Your task to perform on an android device: Find coffee shops on Maps Image 0: 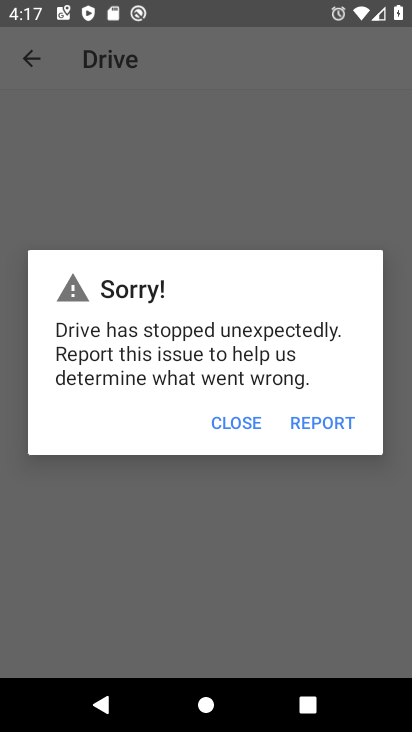
Step 0: press home button
Your task to perform on an android device: Find coffee shops on Maps Image 1: 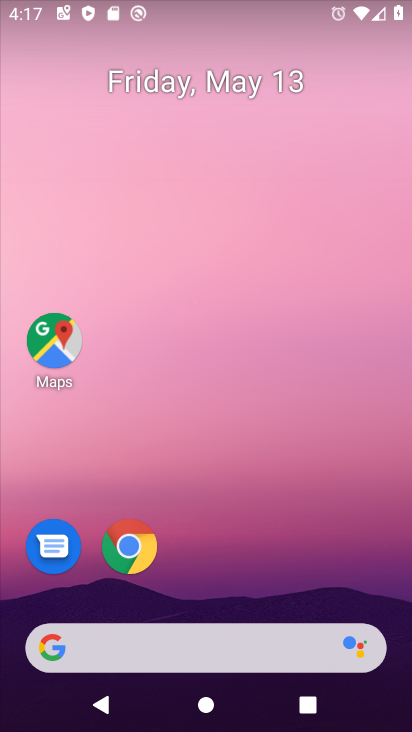
Step 1: click (58, 346)
Your task to perform on an android device: Find coffee shops on Maps Image 2: 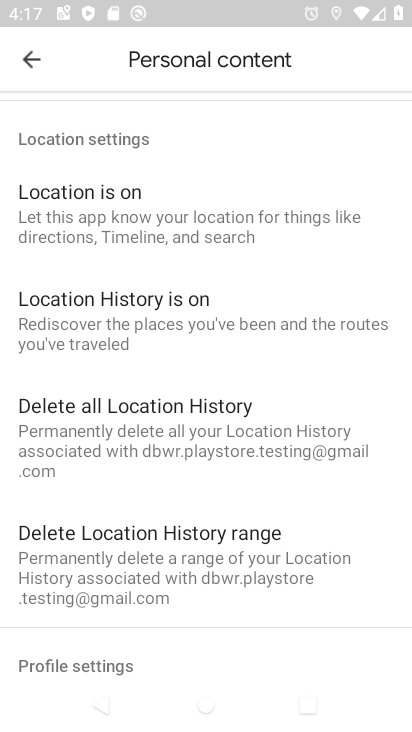
Step 2: click (33, 59)
Your task to perform on an android device: Find coffee shops on Maps Image 3: 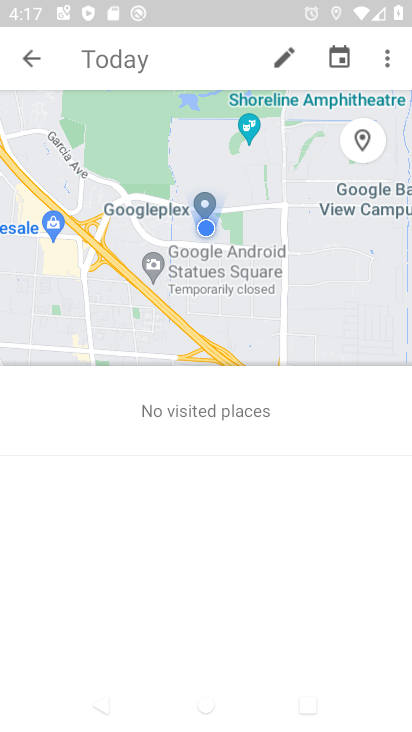
Step 3: click (32, 59)
Your task to perform on an android device: Find coffee shops on Maps Image 4: 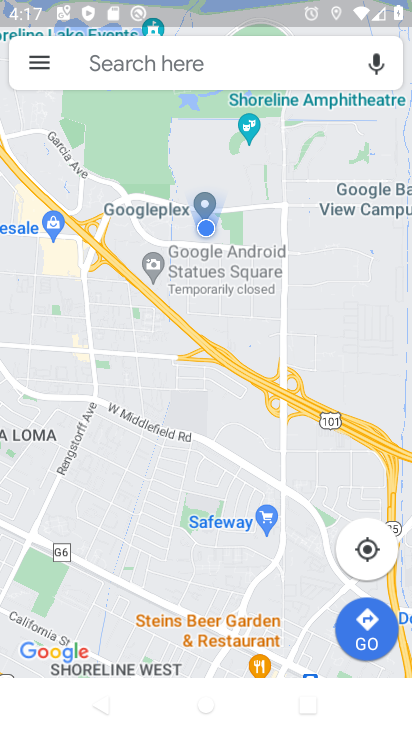
Step 4: click (198, 61)
Your task to perform on an android device: Find coffee shops on Maps Image 5: 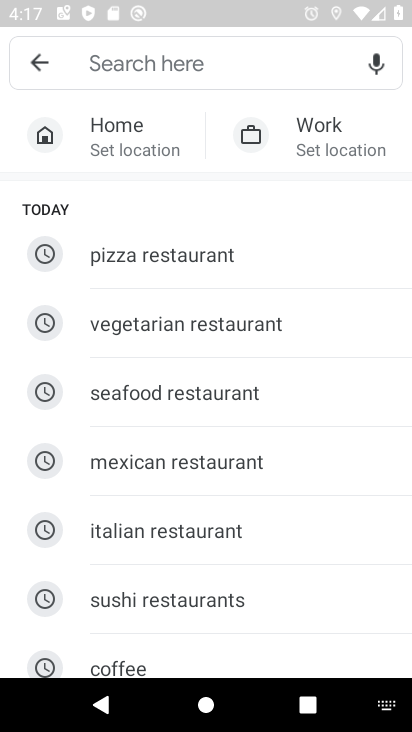
Step 5: type "coffee shops"
Your task to perform on an android device: Find coffee shops on Maps Image 6: 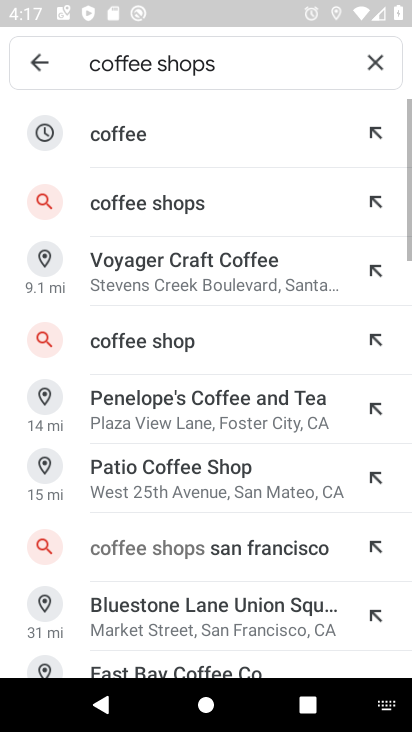
Step 6: click (208, 206)
Your task to perform on an android device: Find coffee shops on Maps Image 7: 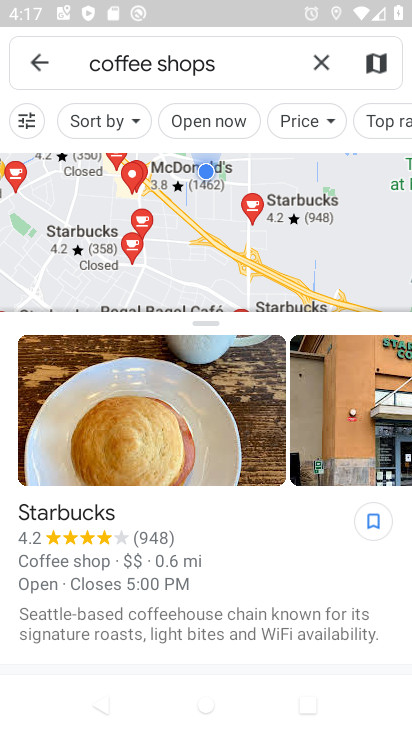
Step 7: task complete